Your task to perform on an android device: Search for pizza restaurants on Maps Image 0: 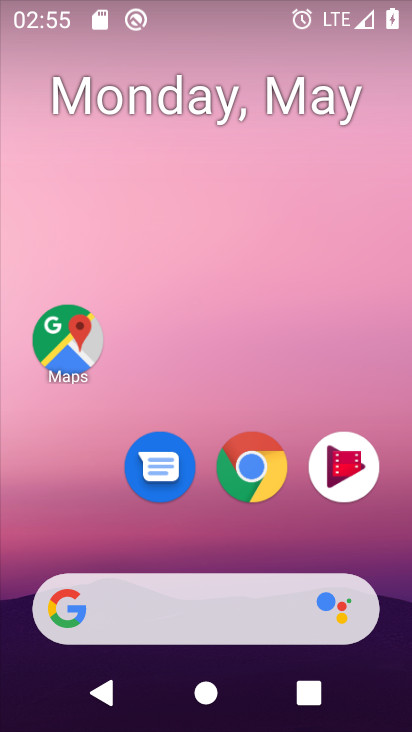
Step 0: click (69, 331)
Your task to perform on an android device: Search for pizza restaurants on Maps Image 1: 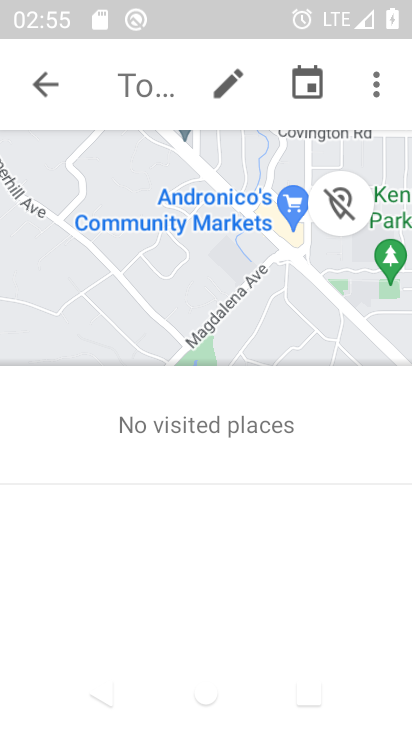
Step 1: click (363, 79)
Your task to perform on an android device: Search for pizza restaurants on Maps Image 2: 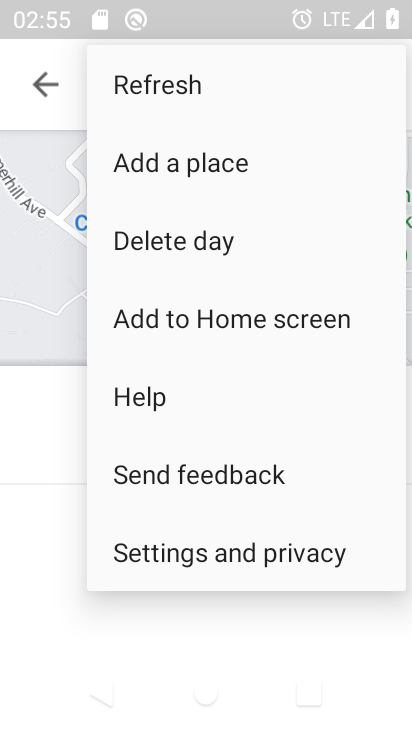
Step 2: click (53, 68)
Your task to perform on an android device: Search for pizza restaurants on Maps Image 3: 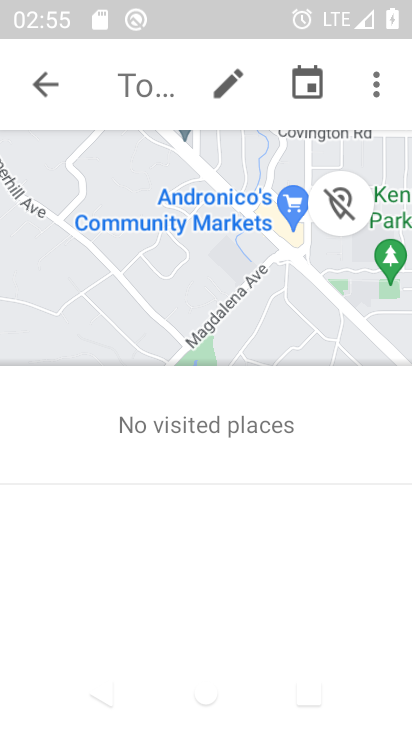
Step 3: click (53, 68)
Your task to perform on an android device: Search for pizza restaurants on Maps Image 4: 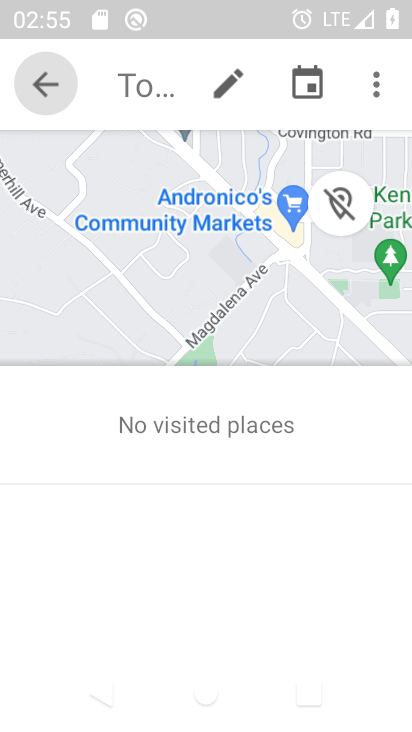
Step 4: click (53, 68)
Your task to perform on an android device: Search for pizza restaurants on Maps Image 5: 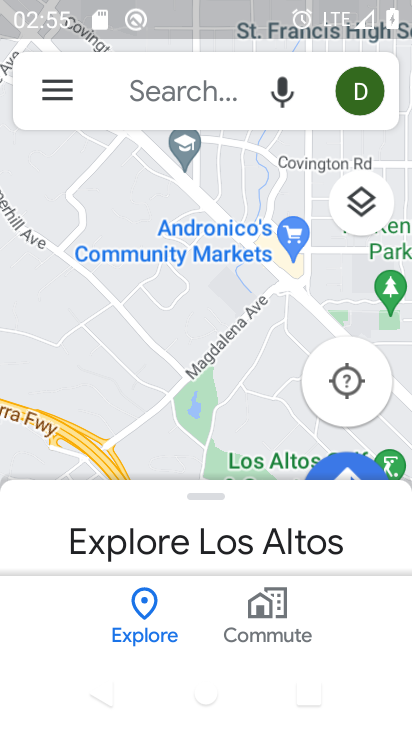
Step 5: click (171, 88)
Your task to perform on an android device: Search for pizza restaurants on Maps Image 6: 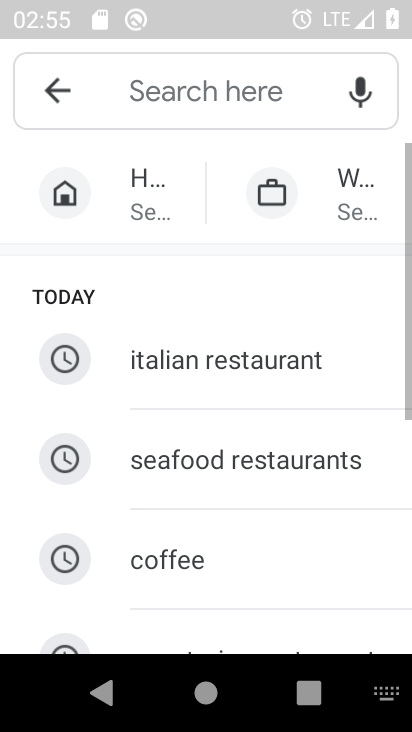
Step 6: drag from (149, 566) to (206, 257)
Your task to perform on an android device: Search for pizza restaurants on Maps Image 7: 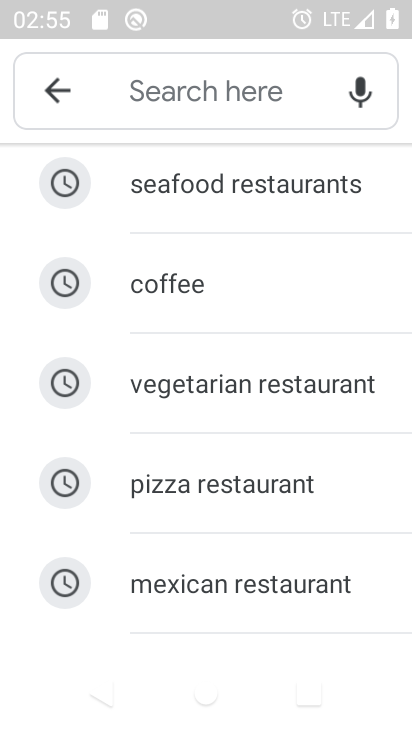
Step 7: click (167, 481)
Your task to perform on an android device: Search for pizza restaurants on Maps Image 8: 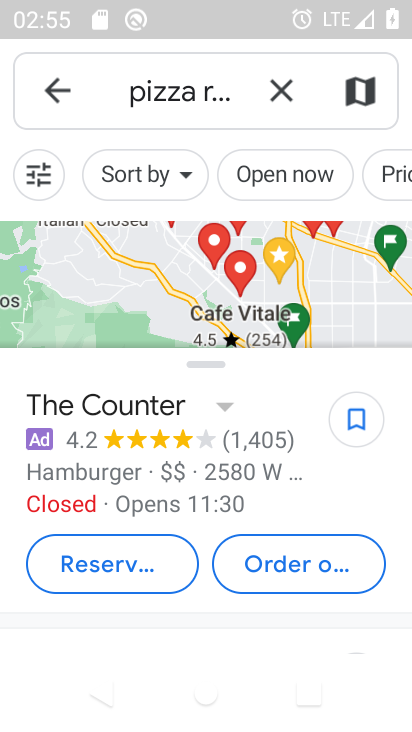
Step 8: task complete